Your task to perform on an android device: What's the weather going to be this weekend? Image 0: 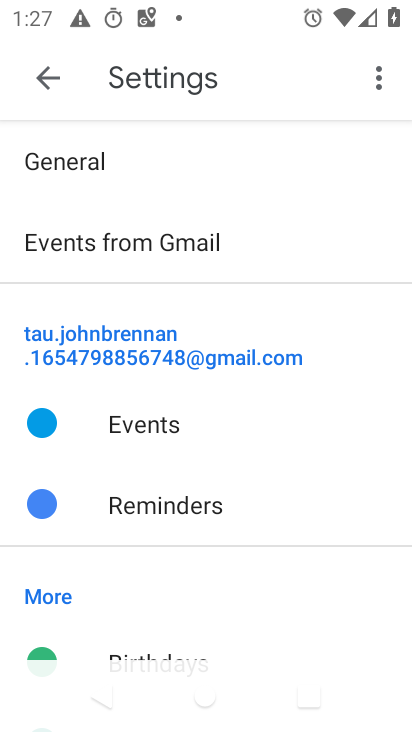
Step 0: press back button
Your task to perform on an android device: What's the weather going to be this weekend? Image 1: 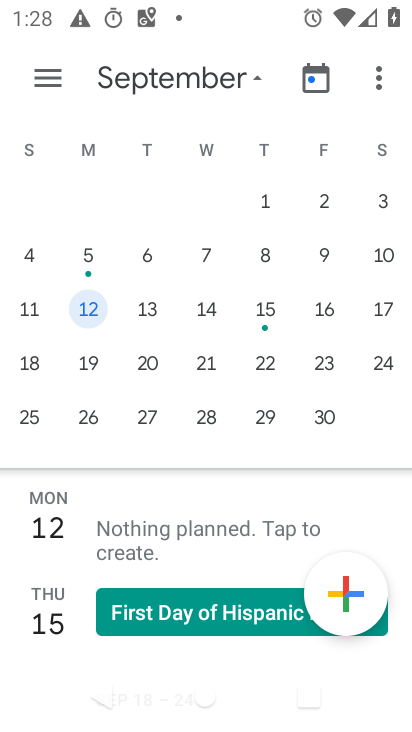
Step 1: press back button
Your task to perform on an android device: What's the weather going to be this weekend? Image 2: 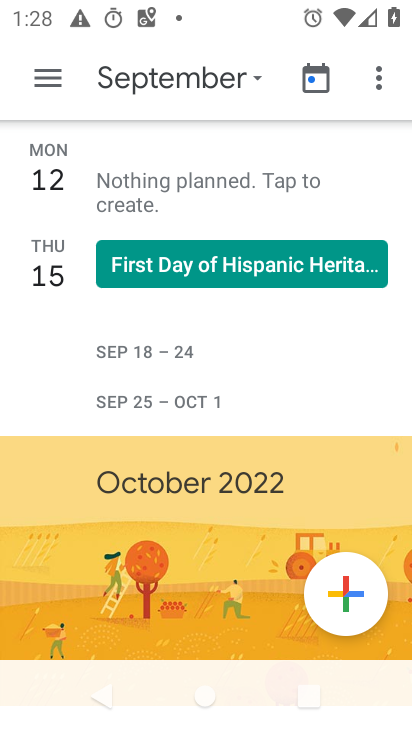
Step 2: press back button
Your task to perform on an android device: What's the weather going to be this weekend? Image 3: 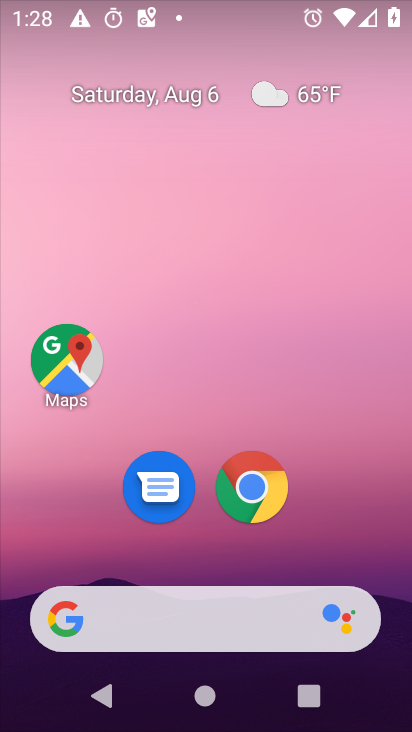
Step 3: click (212, 612)
Your task to perform on an android device: What's the weather going to be this weekend? Image 4: 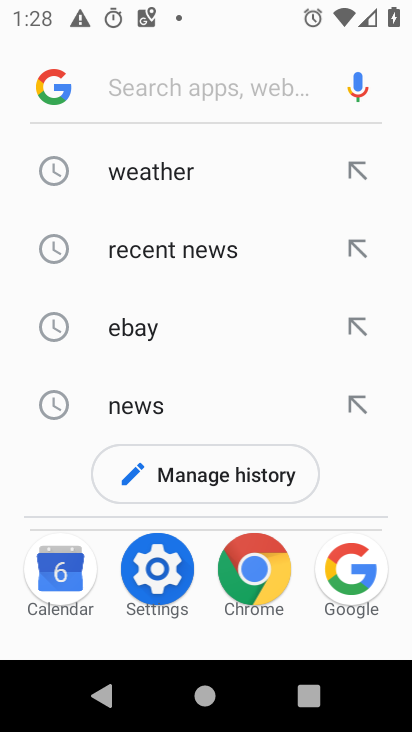
Step 4: click (165, 168)
Your task to perform on an android device: What's the weather going to be this weekend? Image 5: 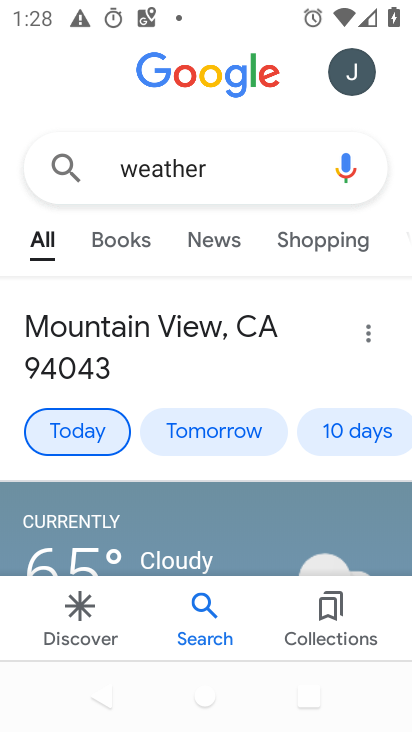
Step 5: click (319, 428)
Your task to perform on an android device: What's the weather going to be this weekend? Image 6: 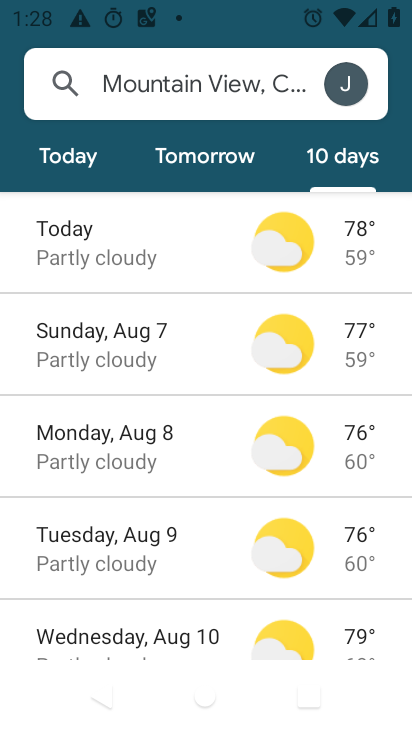
Step 6: task complete